Your task to perform on an android device: turn on the 24-hour format for clock Image 0: 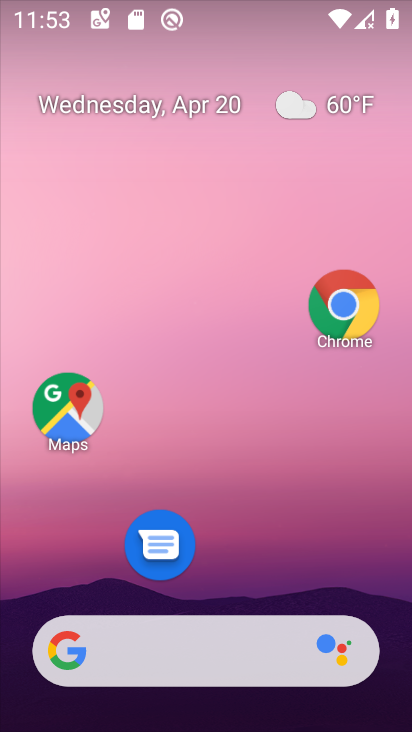
Step 0: drag from (219, 619) to (277, 94)
Your task to perform on an android device: turn on the 24-hour format for clock Image 1: 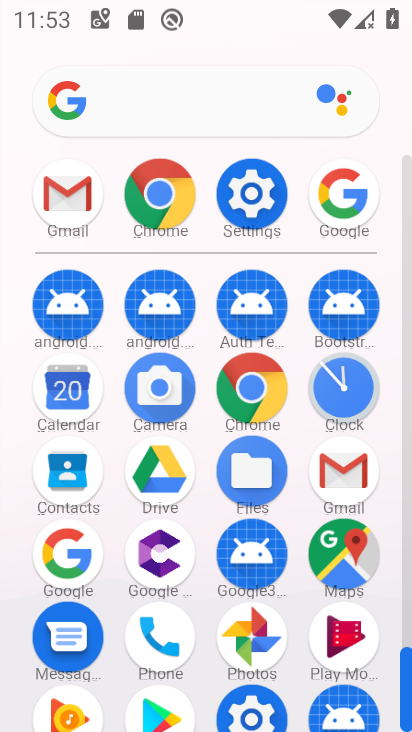
Step 1: click (348, 385)
Your task to perform on an android device: turn on the 24-hour format for clock Image 2: 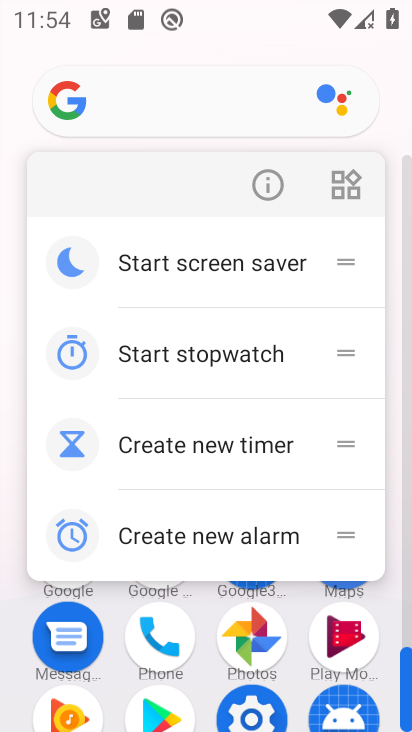
Step 2: click (282, 646)
Your task to perform on an android device: turn on the 24-hour format for clock Image 3: 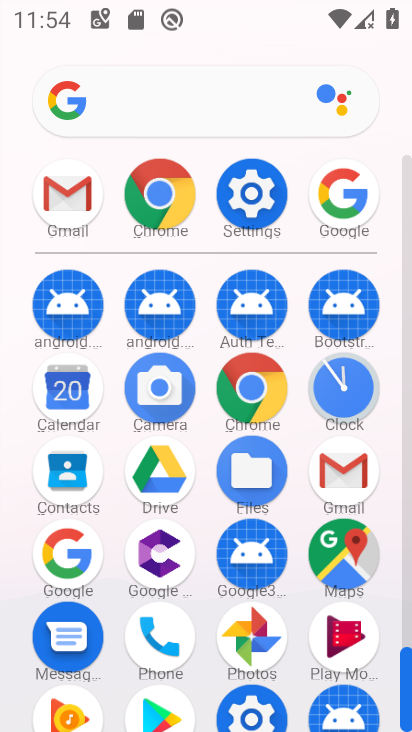
Step 3: click (340, 399)
Your task to perform on an android device: turn on the 24-hour format for clock Image 4: 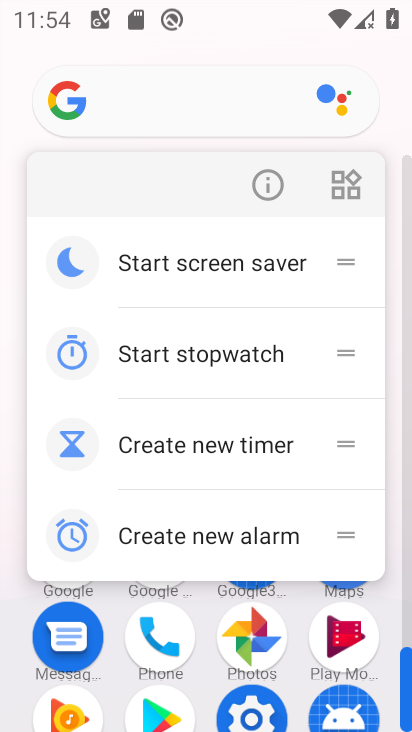
Step 4: click (387, 478)
Your task to perform on an android device: turn on the 24-hour format for clock Image 5: 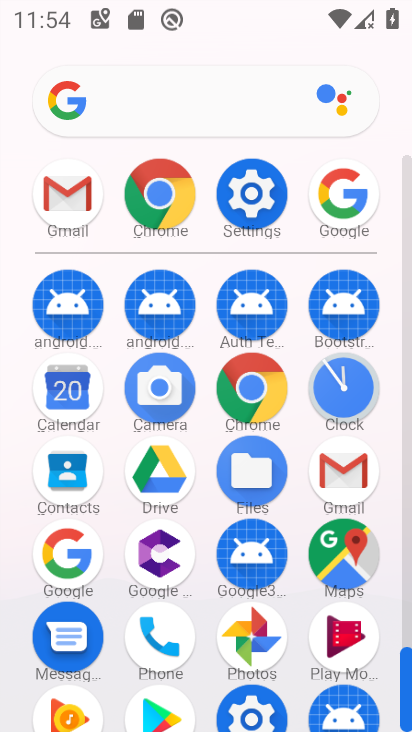
Step 5: click (355, 406)
Your task to perform on an android device: turn on the 24-hour format for clock Image 6: 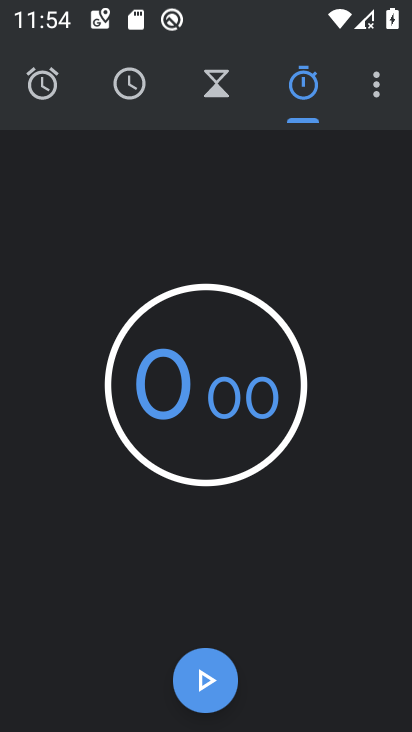
Step 6: click (374, 90)
Your task to perform on an android device: turn on the 24-hour format for clock Image 7: 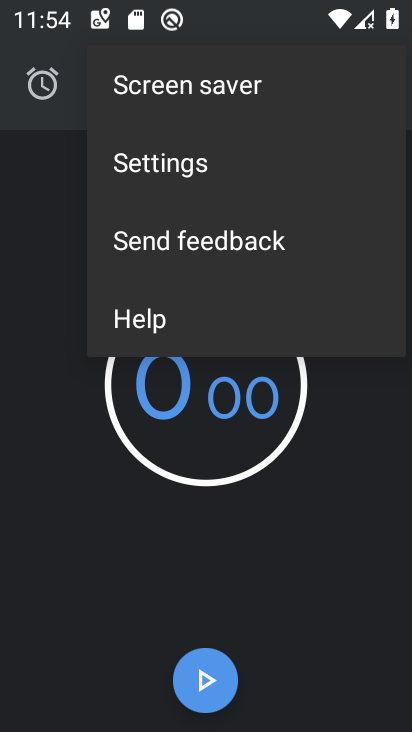
Step 7: click (177, 167)
Your task to perform on an android device: turn on the 24-hour format for clock Image 8: 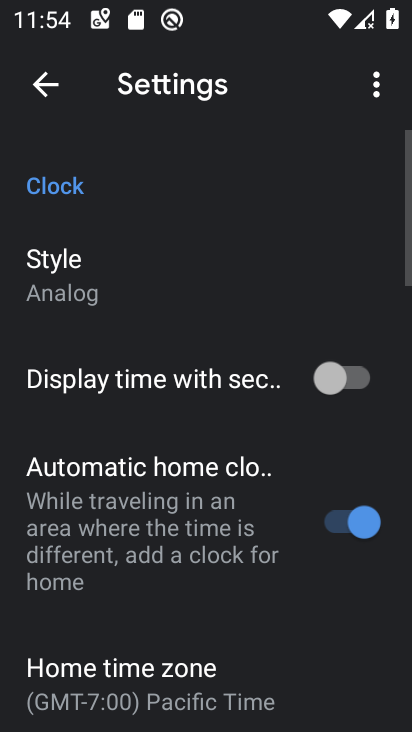
Step 8: drag from (139, 619) to (207, 206)
Your task to perform on an android device: turn on the 24-hour format for clock Image 9: 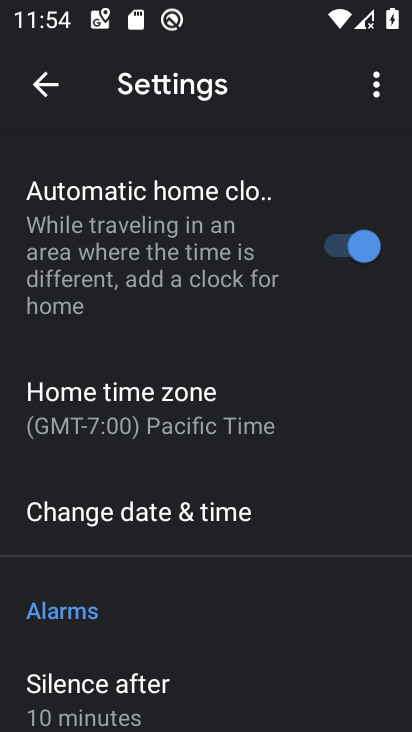
Step 9: click (194, 496)
Your task to perform on an android device: turn on the 24-hour format for clock Image 10: 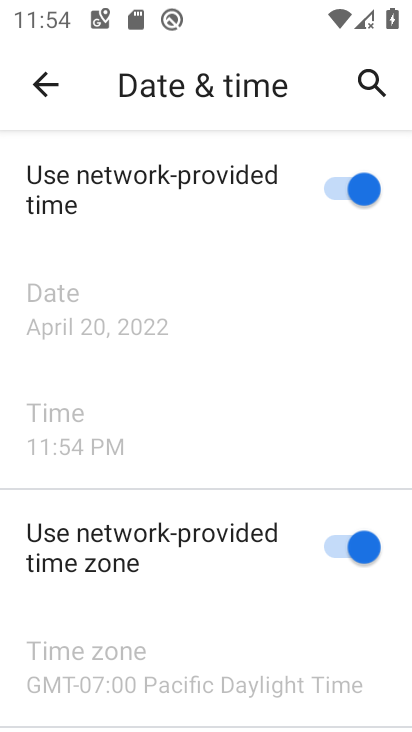
Step 10: task complete